Your task to perform on an android device: read, delete, or share a saved page in the chrome app Image 0: 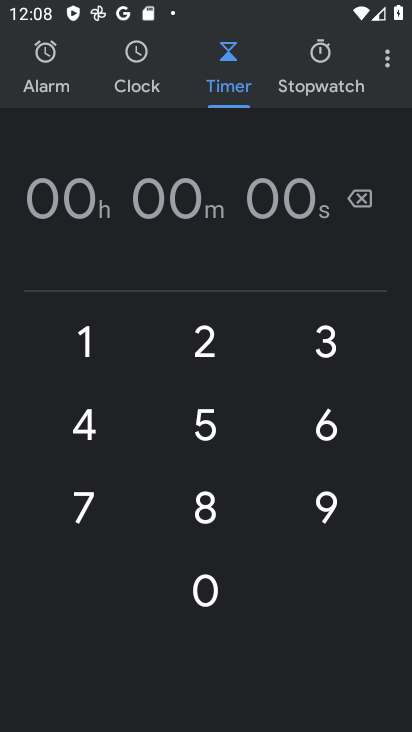
Step 0: press back button
Your task to perform on an android device: read, delete, or share a saved page in the chrome app Image 1: 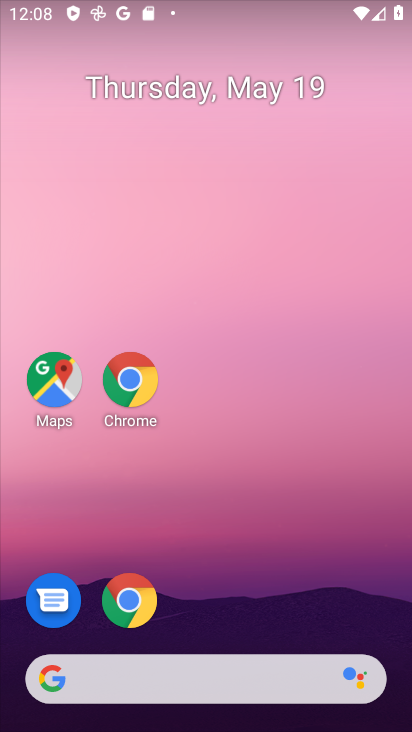
Step 1: drag from (295, 672) to (138, 191)
Your task to perform on an android device: read, delete, or share a saved page in the chrome app Image 2: 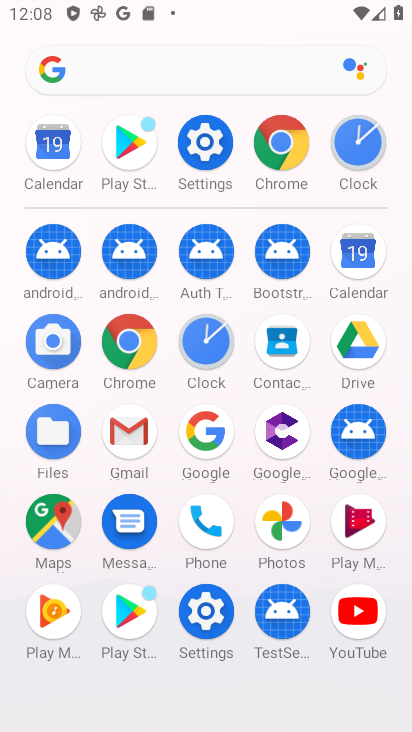
Step 2: click (280, 138)
Your task to perform on an android device: read, delete, or share a saved page in the chrome app Image 3: 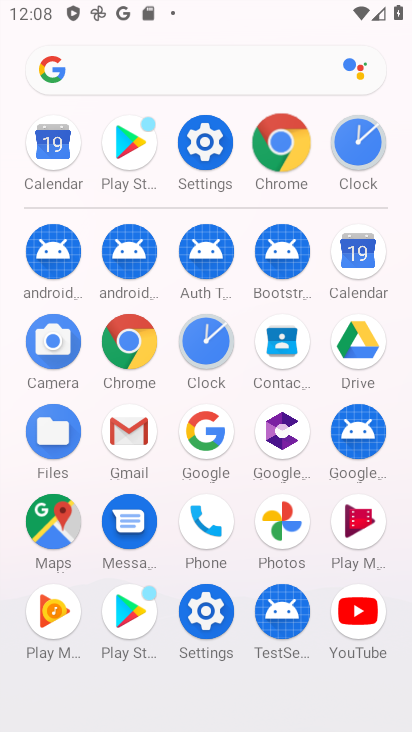
Step 3: click (280, 138)
Your task to perform on an android device: read, delete, or share a saved page in the chrome app Image 4: 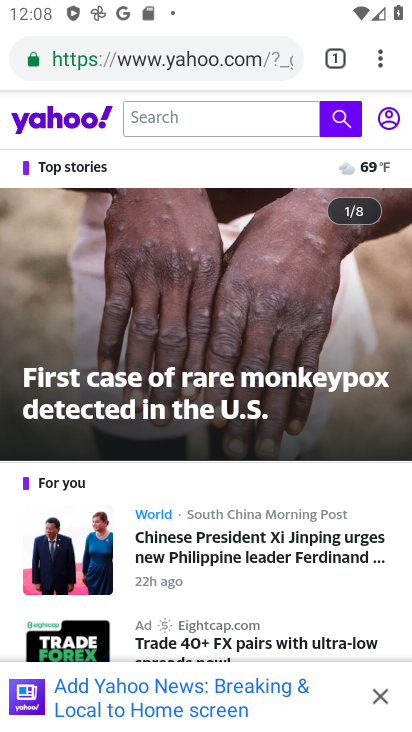
Step 4: click (378, 60)
Your task to perform on an android device: read, delete, or share a saved page in the chrome app Image 5: 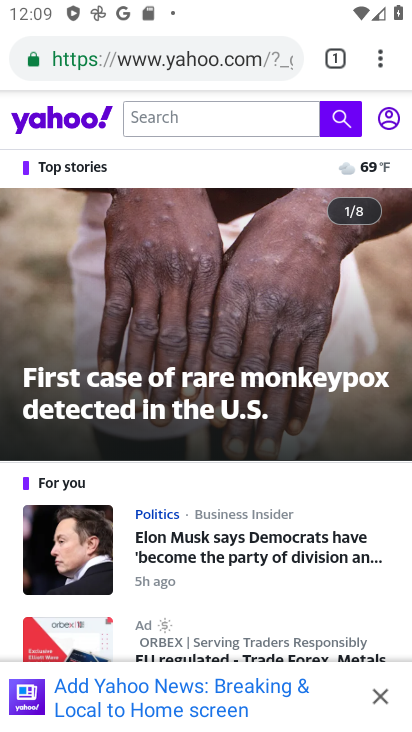
Step 5: drag from (377, 55) to (179, 378)
Your task to perform on an android device: read, delete, or share a saved page in the chrome app Image 6: 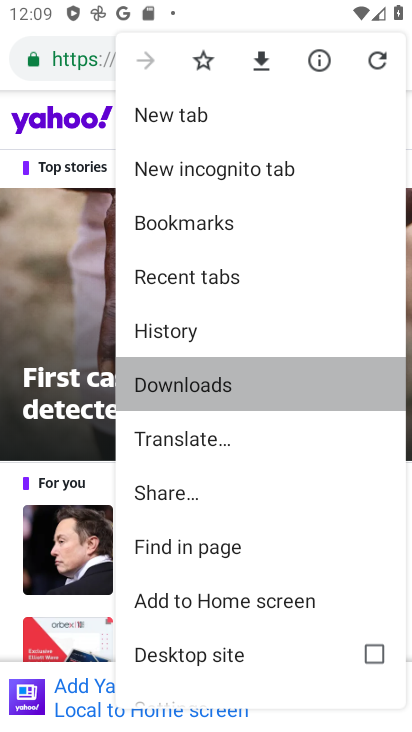
Step 6: click (179, 378)
Your task to perform on an android device: read, delete, or share a saved page in the chrome app Image 7: 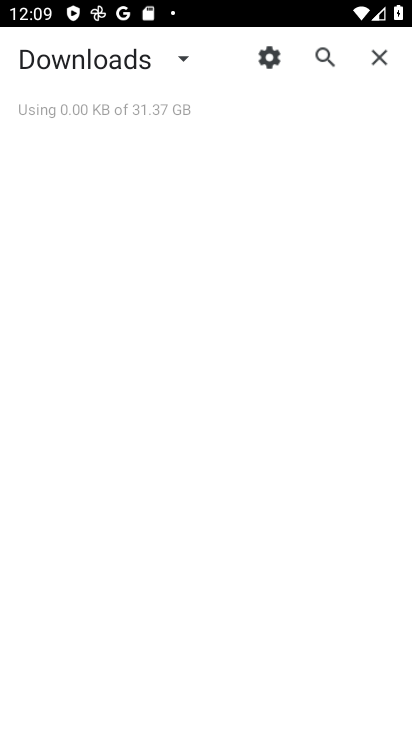
Step 7: task complete